Your task to perform on an android device: toggle improve location accuracy Image 0: 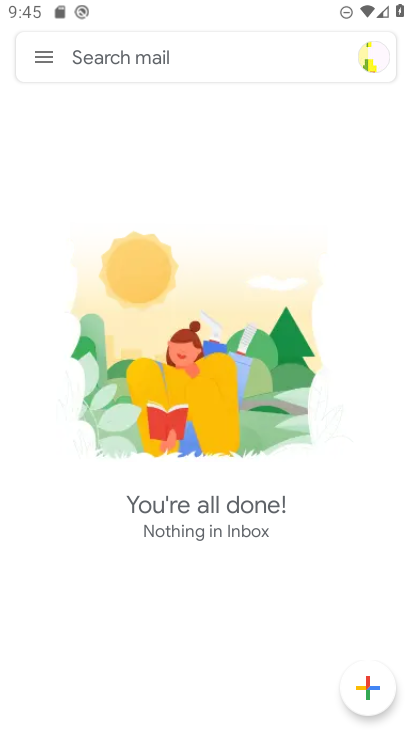
Step 0: press home button
Your task to perform on an android device: toggle improve location accuracy Image 1: 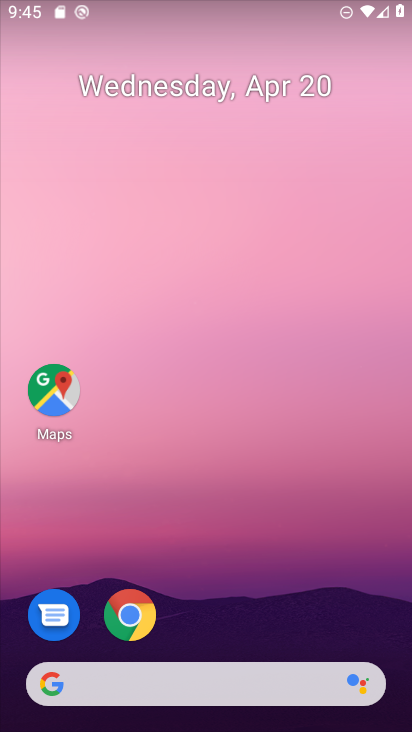
Step 1: drag from (214, 602) to (250, 0)
Your task to perform on an android device: toggle improve location accuracy Image 2: 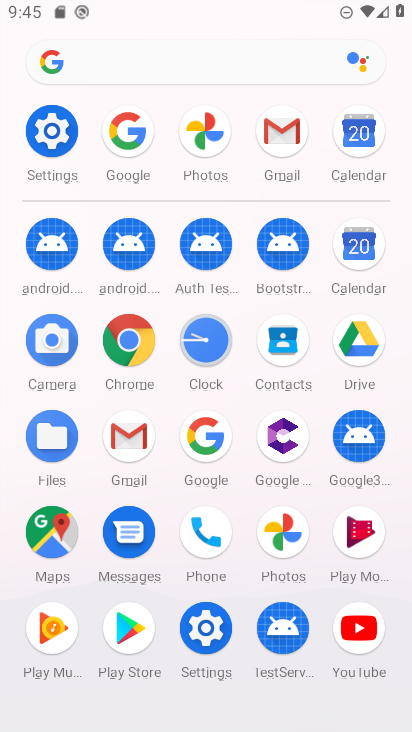
Step 2: click (58, 134)
Your task to perform on an android device: toggle improve location accuracy Image 3: 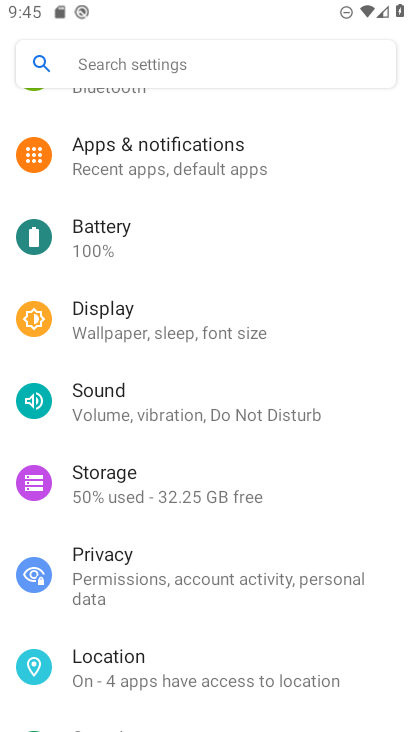
Step 3: drag from (189, 530) to (248, 296)
Your task to perform on an android device: toggle improve location accuracy Image 4: 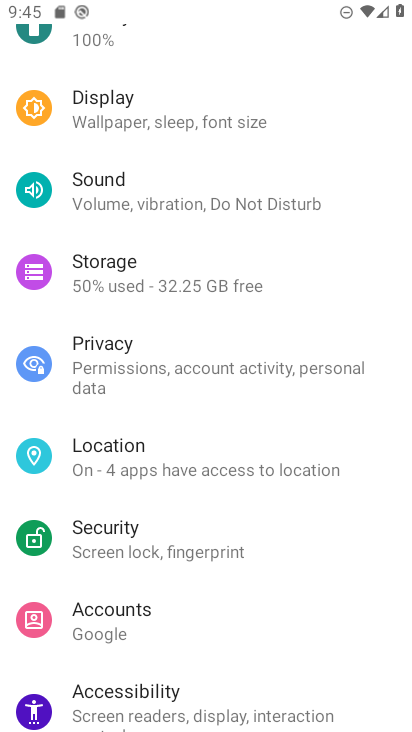
Step 4: click (144, 478)
Your task to perform on an android device: toggle improve location accuracy Image 5: 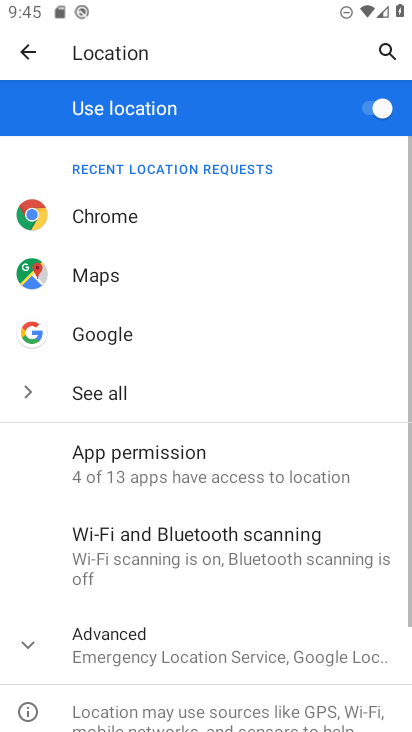
Step 5: drag from (183, 591) to (259, 459)
Your task to perform on an android device: toggle improve location accuracy Image 6: 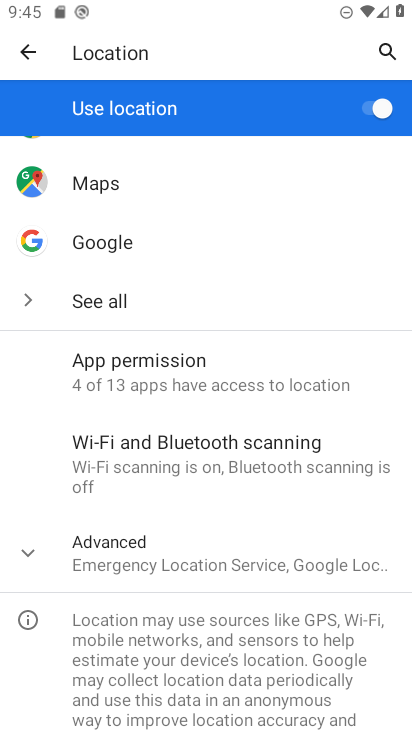
Step 6: click (235, 562)
Your task to perform on an android device: toggle improve location accuracy Image 7: 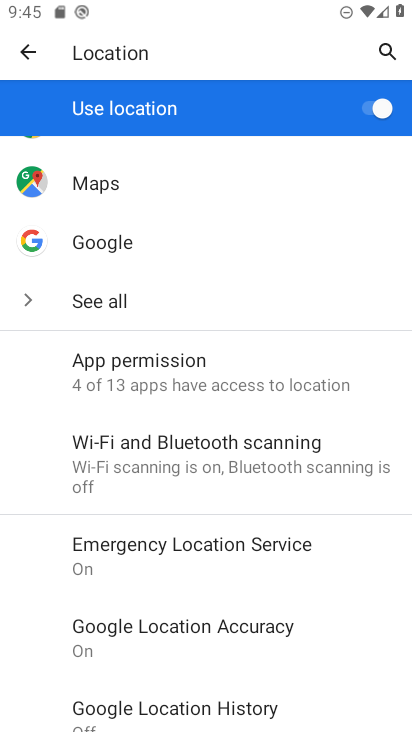
Step 7: drag from (221, 593) to (272, 464)
Your task to perform on an android device: toggle improve location accuracy Image 8: 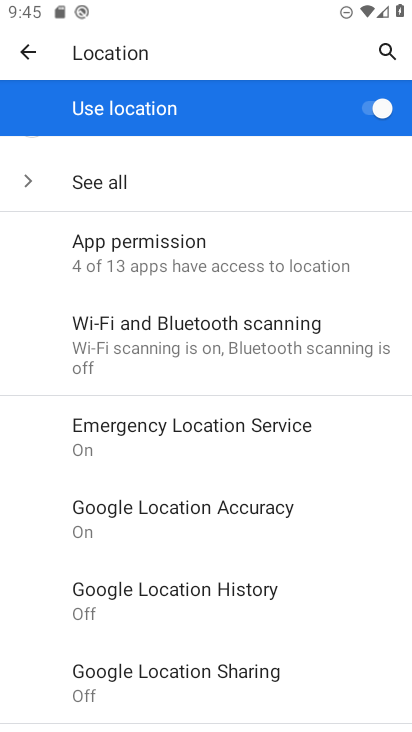
Step 8: click (271, 507)
Your task to perform on an android device: toggle improve location accuracy Image 9: 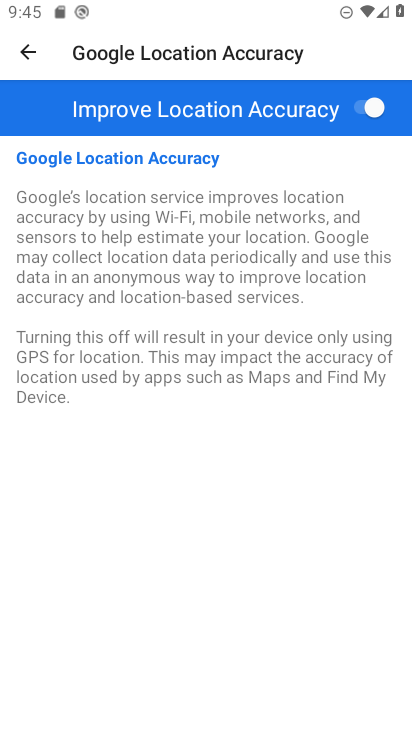
Step 9: click (374, 110)
Your task to perform on an android device: toggle improve location accuracy Image 10: 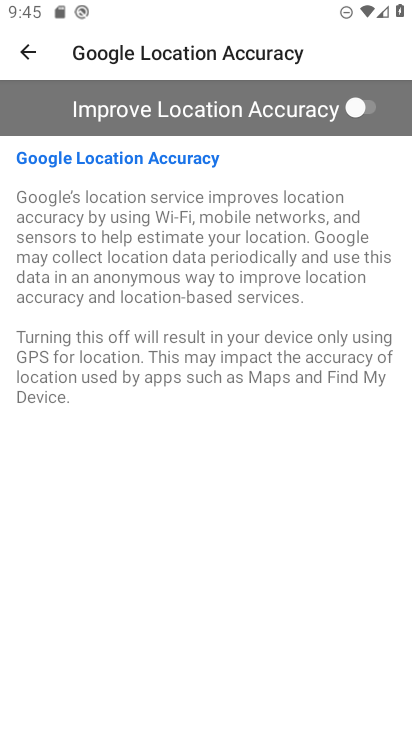
Step 10: task complete